Your task to perform on an android device: What's the weather? Image 0: 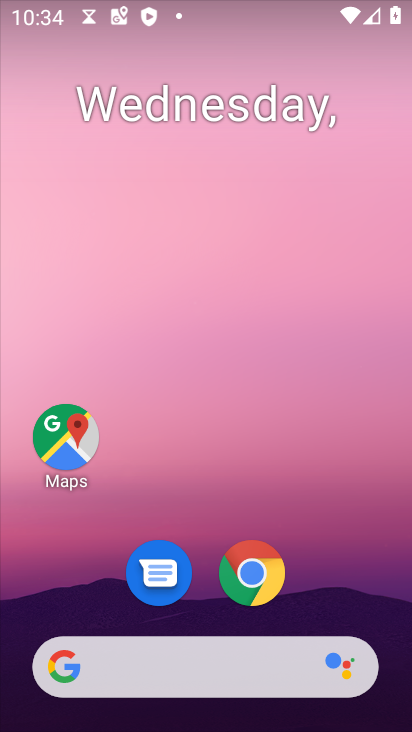
Step 0: drag from (221, 643) to (214, 251)
Your task to perform on an android device: What's the weather? Image 1: 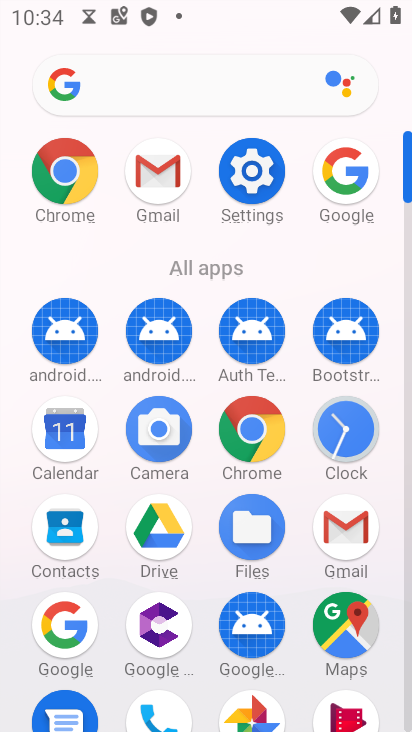
Step 1: click (68, 626)
Your task to perform on an android device: What's the weather? Image 2: 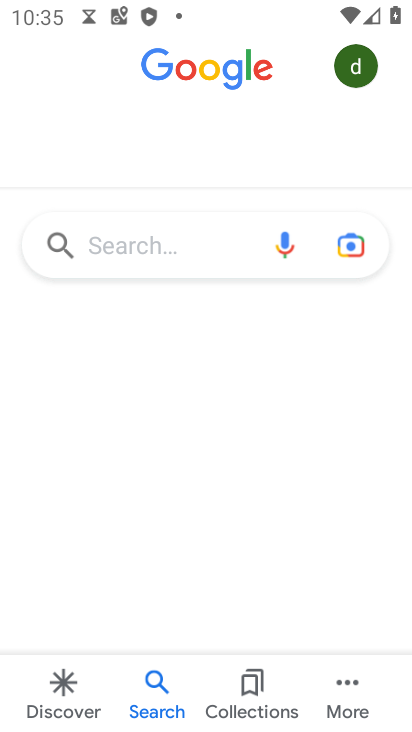
Step 2: click (146, 238)
Your task to perform on an android device: What's the weather? Image 3: 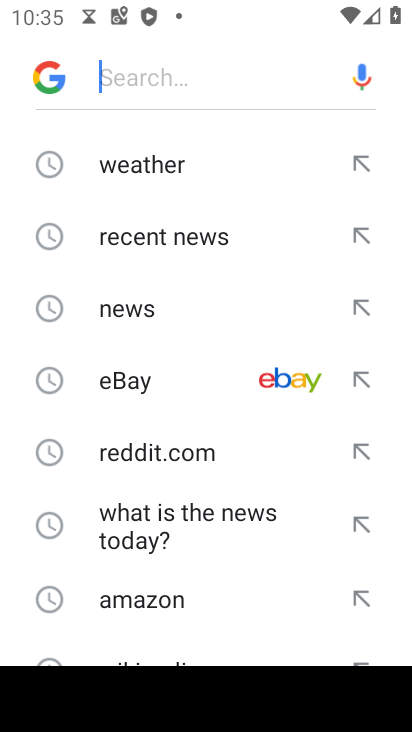
Step 3: click (143, 172)
Your task to perform on an android device: What's the weather? Image 4: 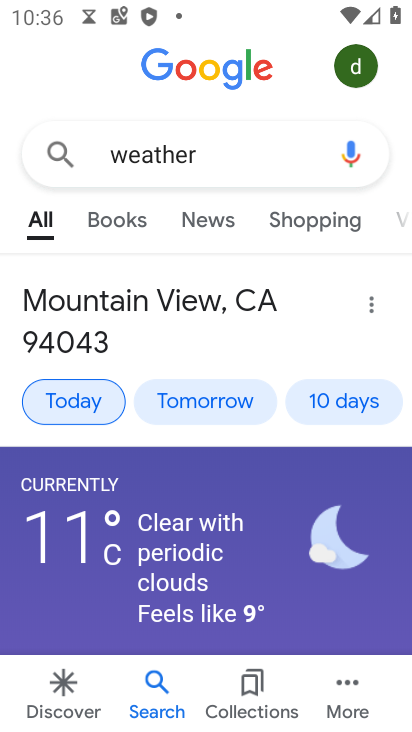
Step 4: task complete